Your task to perform on an android device: check storage Image 0: 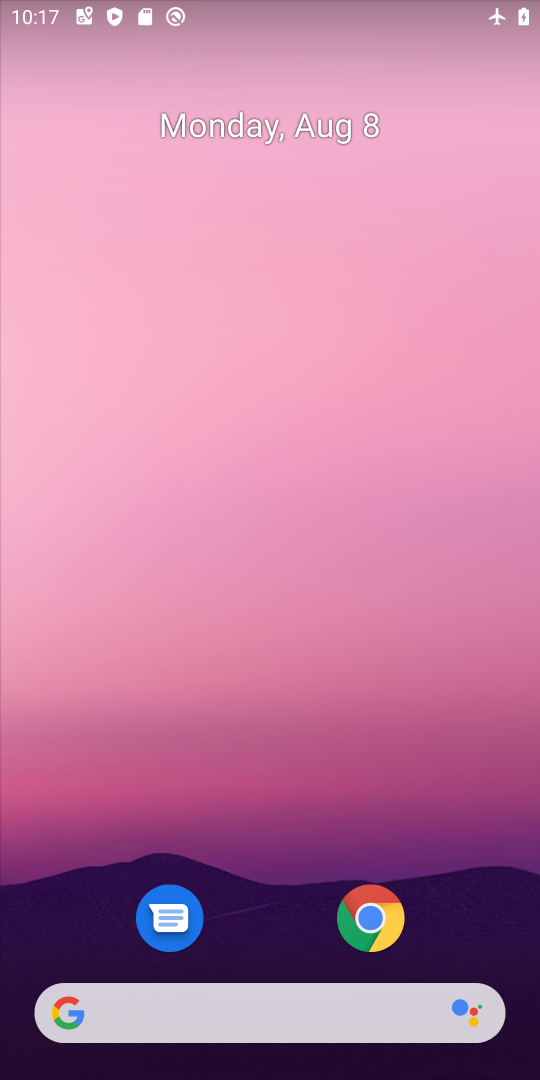
Step 0: drag from (256, 975) to (233, 126)
Your task to perform on an android device: check storage Image 1: 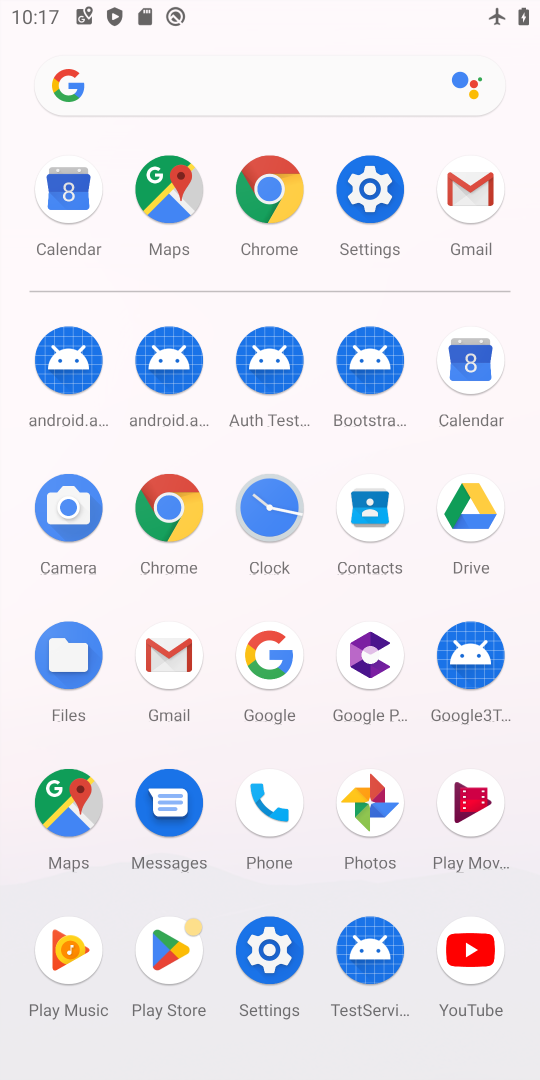
Step 1: click (371, 191)
Your task to perform on an android device: check storage Image 2: 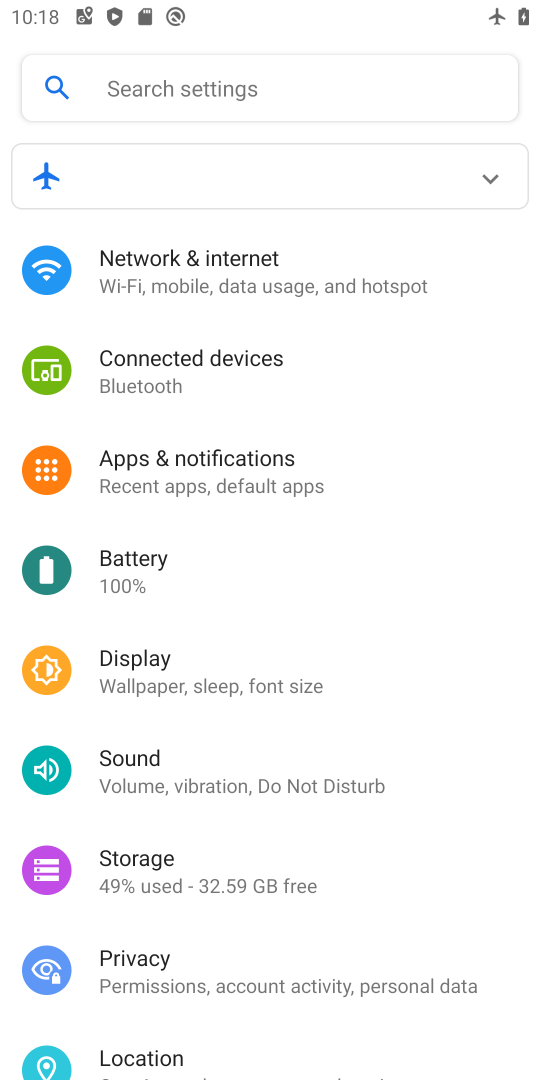
Step 2: click (137, 902)
Your task to perform on an android device: check storage Image 3: 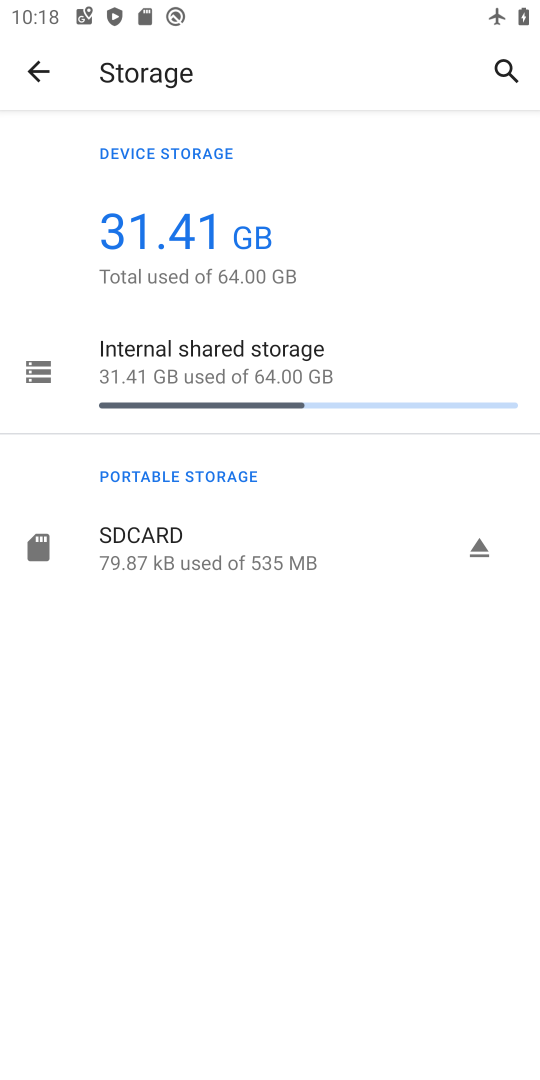
Step 3: click (221, 365)
Your task to perform on an android device: check storage Image 4: 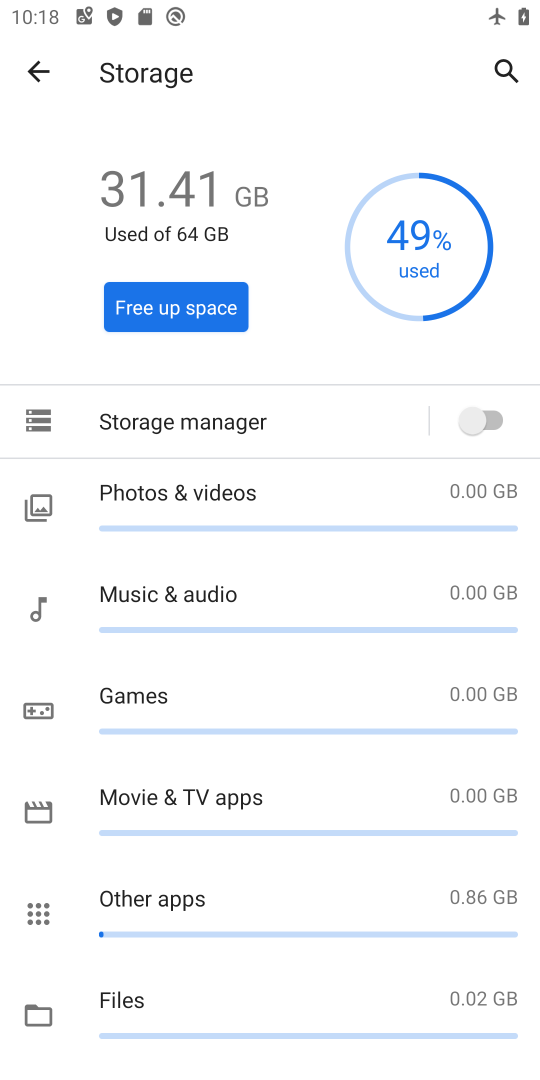
Step 4: task complete